Your task to perform on an android device: change your default location settings in chrome Image 0: 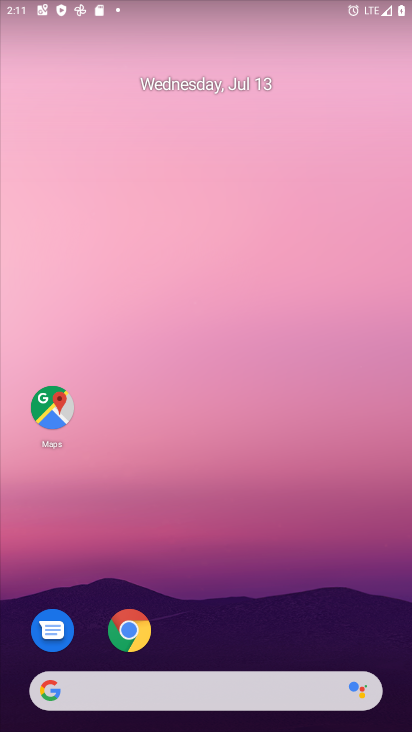
Step 0: drag from (279, 620) to (204, 247)
Your task to perform on an android device: change your default location settings in chrome Image 1: 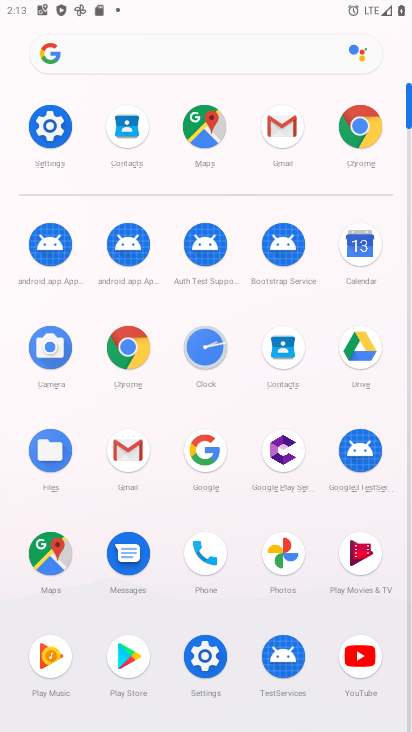
Step 1: click (122, 351)
Your task to perform on an android device: change your default location settings in chrome Image 2: 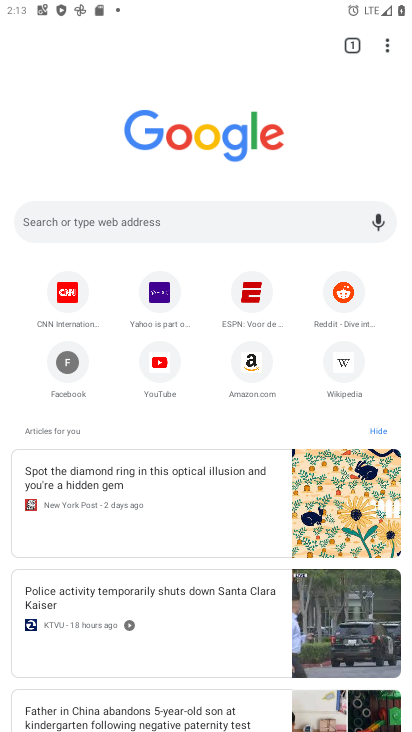
Step 2: click (380, 44)
Your task to perform on an android device: change your default location settings in chrome Image 3: 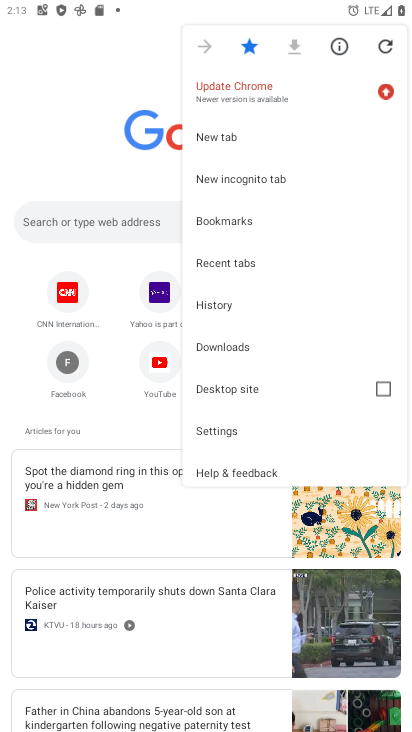
Step 3: click (217, 439)
Your task to perform on an android device: change your default location settings in chrome Image 4: 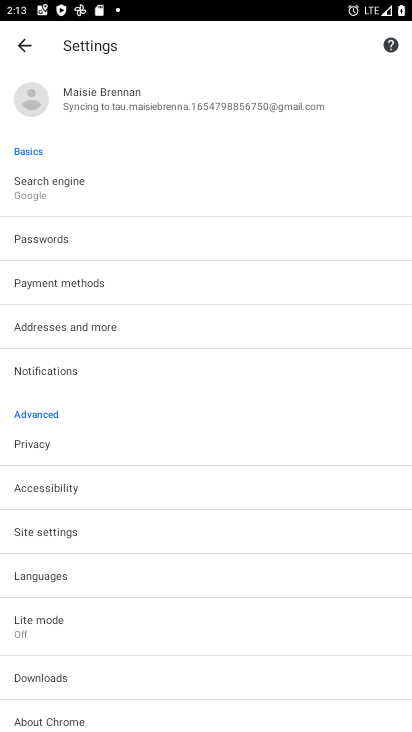
Step 4: click (91, 194)
Your task to perform on an android device: change your default location settings in chrome Image 5: 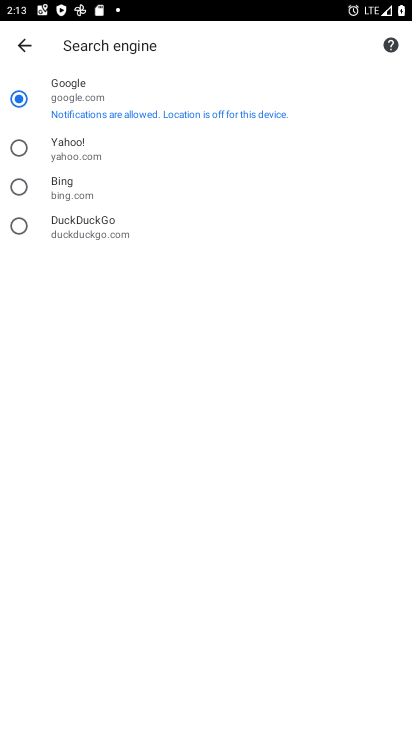
Step 5: click (94, 189)
Your task to perform on an android device: change your default location settings in chrome Image 6: 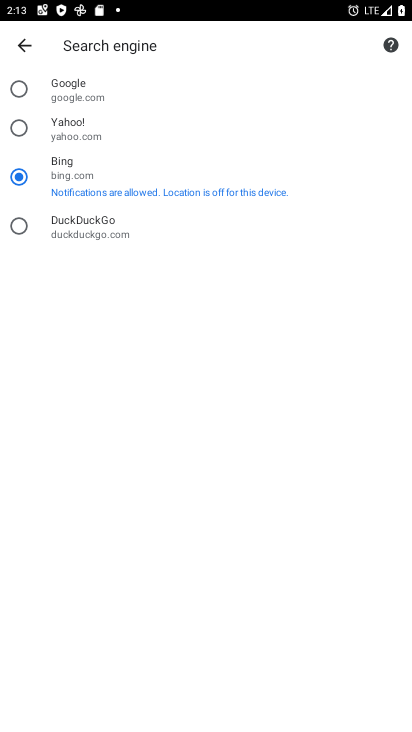
Step 6: task complete